Your task to perform on an android device: Go to calendar. Show me events next week Image 0: 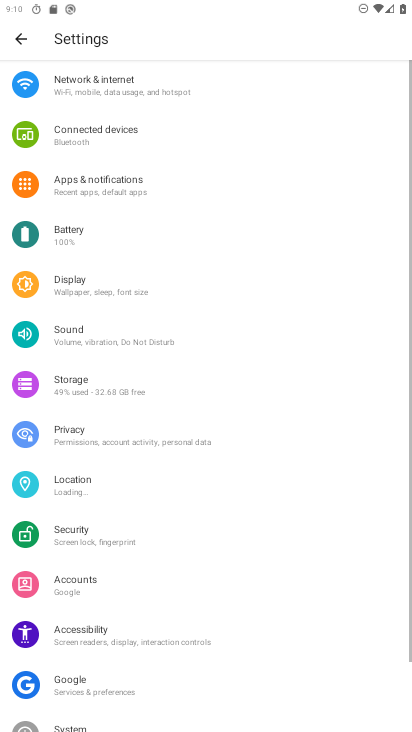
Step 0: press home button
Your task to perform on an android device: Go to calendar. Show me events next week Image 1: 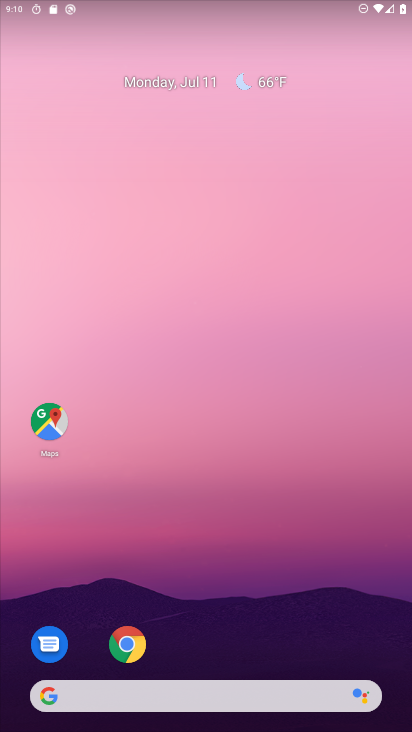
Step 1: drag from (303, 634) to (278, 198)
Your task to perform on an android device: Go to calendar. Show me events next week Image 2: 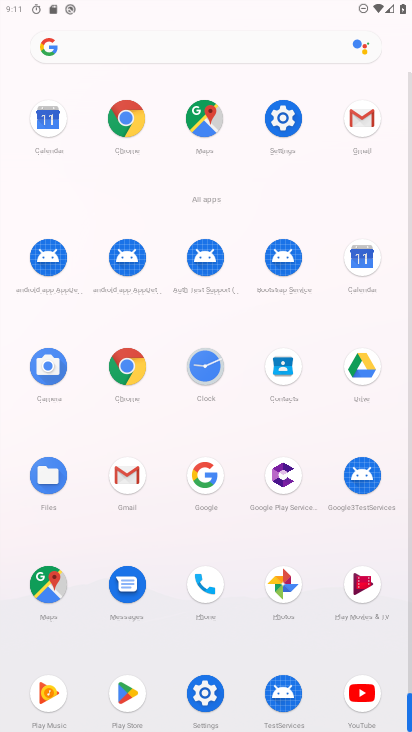
Step 2: click (358, 262)
Your task to perform on an android device: Go to calendar. Show me events next week Image 3: 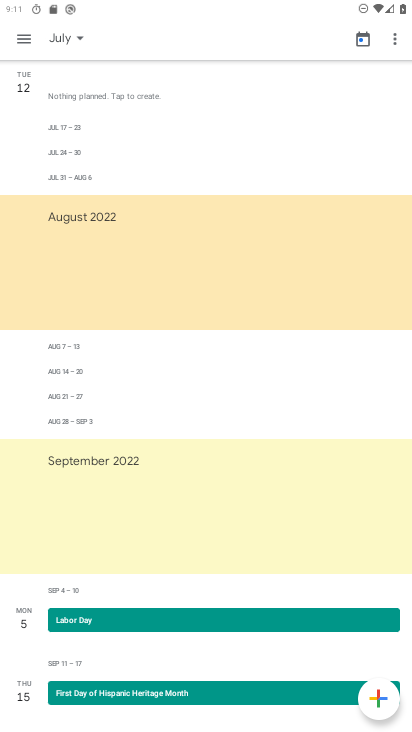
Step 3: click (57, 35)
Your task to perform on an android device: Go to calendar. Show me events next week Image 4: 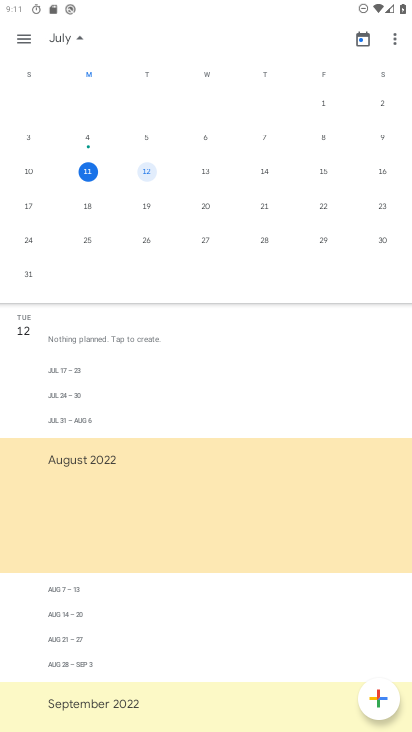
Step 4: click (27, 206)
Your task to perform on an android device: Go to calendar. Show me events next week Image 5: 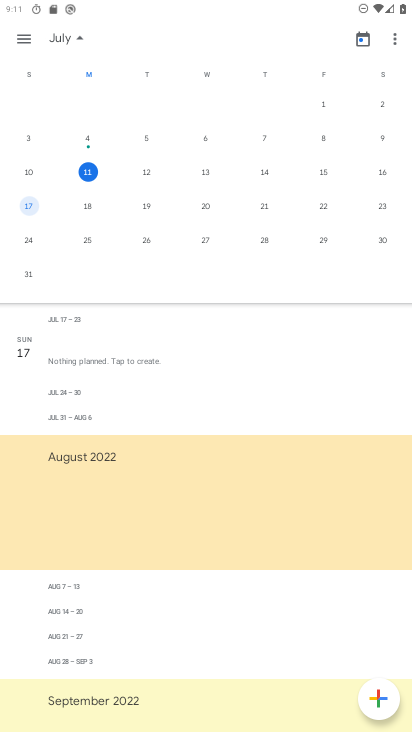
Step 5: click (23, 34)
Your task to perform on an android device: Go to calendar. Show me events next week Image 6: 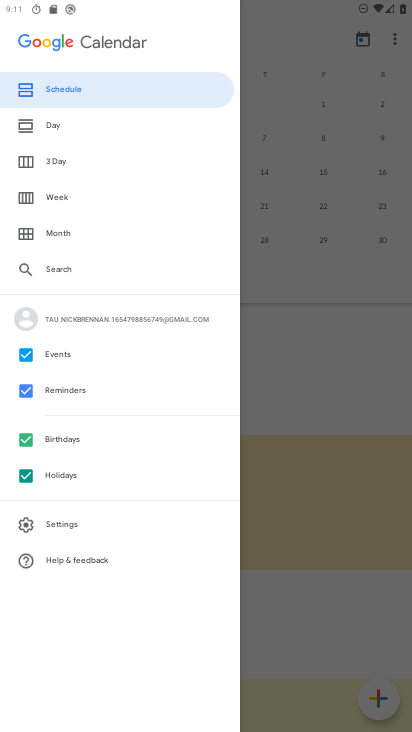
Step 6: click (63, 199)
Your task to perform on an android device: Go to calendar. Show me events next week Image 7: 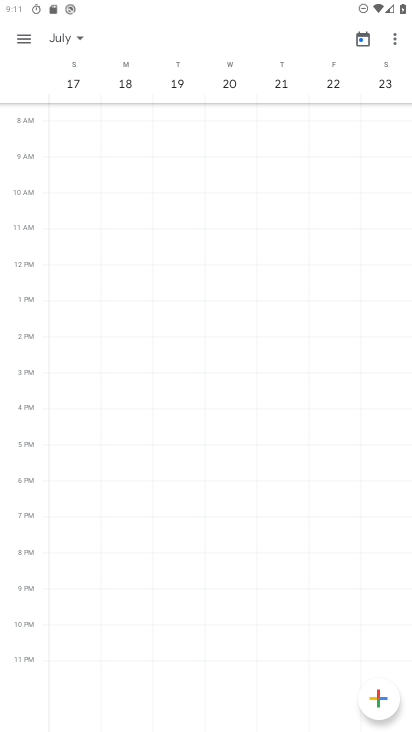
Step 7: task complete